Your task to perform on an android device: Open the web browser Image 0: 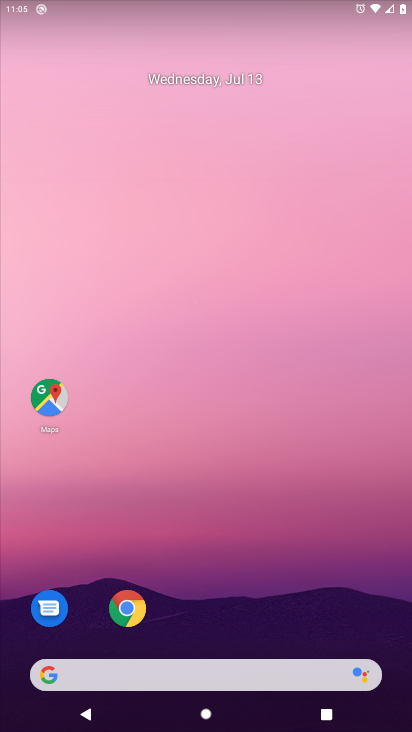
Step 0: click (72, 673)
Your task to perform on an android device: Open the web browser Image 1: 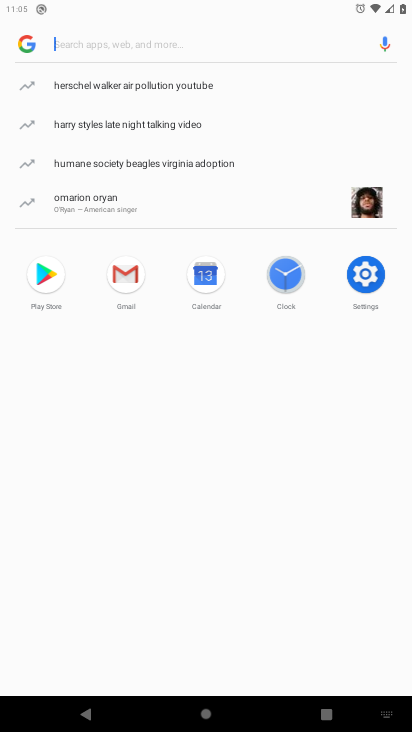
Step 1: task complete